Your task to perform on an android device: create a new album in the google photos Image 0: 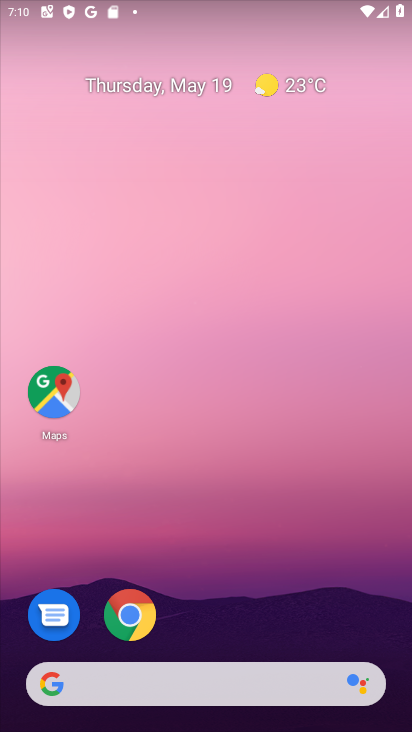
Step 0: drag from (349, 641) to (316, 22)
Your task to perform on an android device: create a new album in the google photos Image 1: 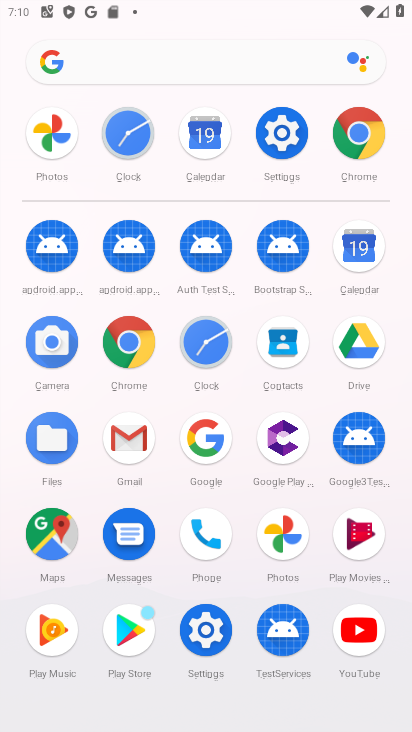
Step 1: click (274, 529)
Your task to perform on an android device: create a new album in the google photos Image 2: 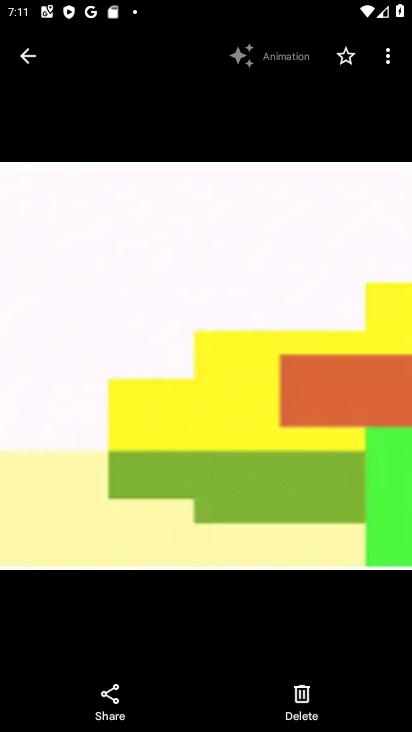
Step 2: press back button
Your task to perform on an android device: create a new album in the google photos Image 3: 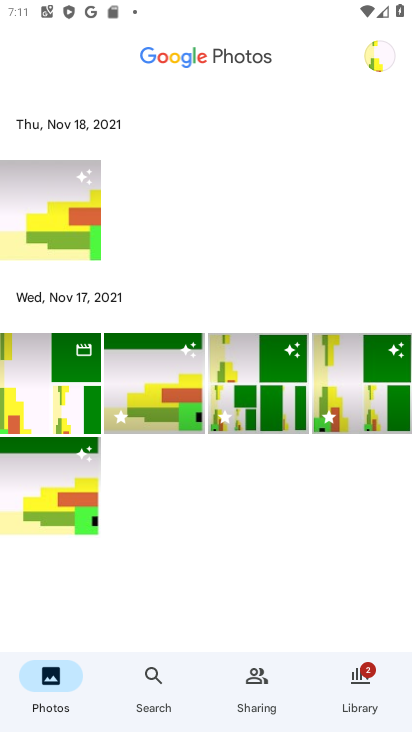
Step 3: click (51, 200)
Your task to perform on an android device: create a new album in the google photos Image 4: 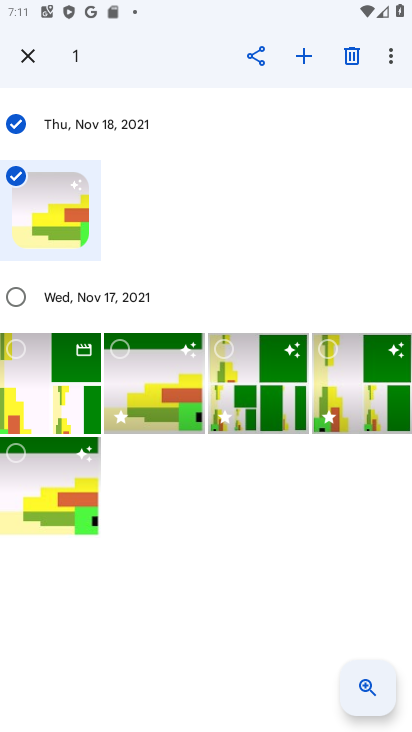
Step 4: click (299, 49)
Your task to perform on an android device: create a new album in the google photos Image 5: 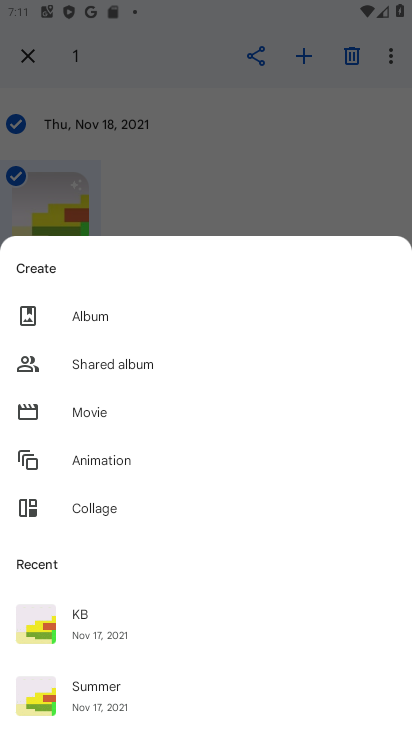
Step 5: click (153, 316)
Your task to perform on an android device: create a new album in the google photos Image 6: 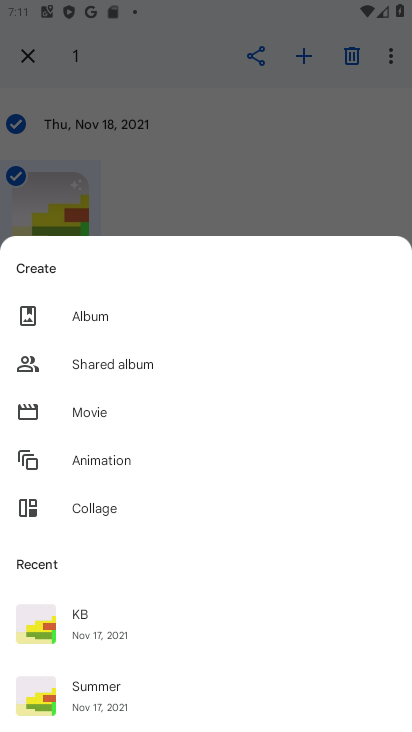
Step 6: click (101, 314)
Your task to perform on an android device: create a new album in the google photos Image 7: 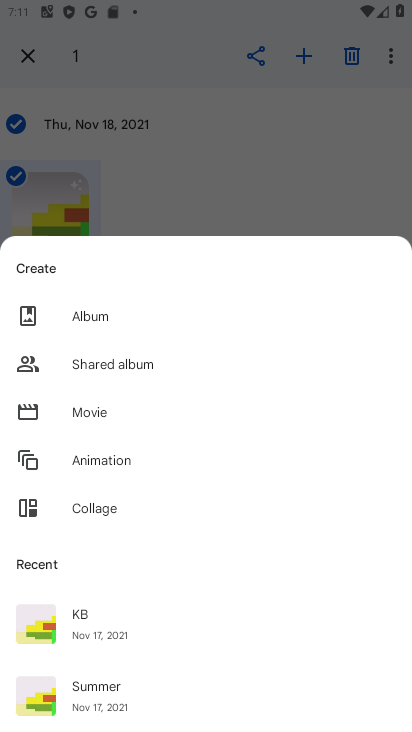
Step 7: click (124, 319)
Your task to perform on an android device: create a new album in the google photos Image 8: 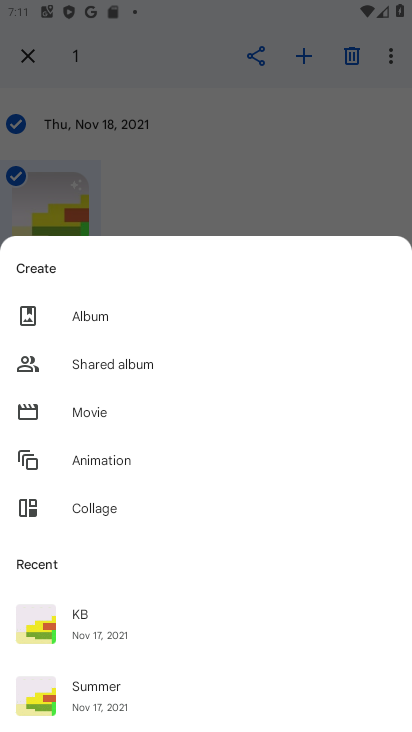
Step 8: click (123, 319)
Your task to perform on an android device: create a new album in the google photos Image 9: 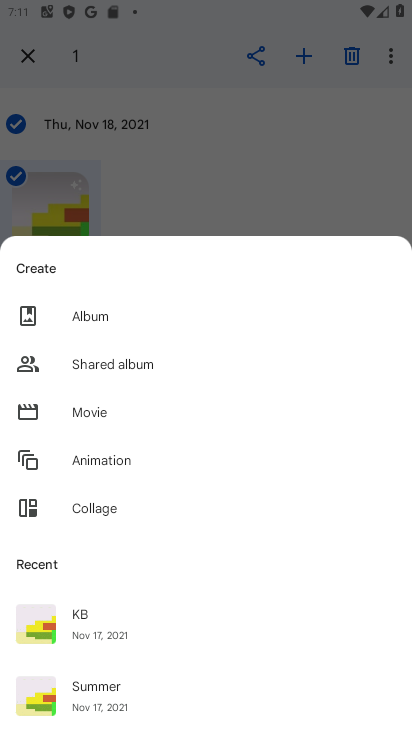
Step 9: click (123, 319)
Your task to perform on an android device: create a new album in the google photos Image 10: 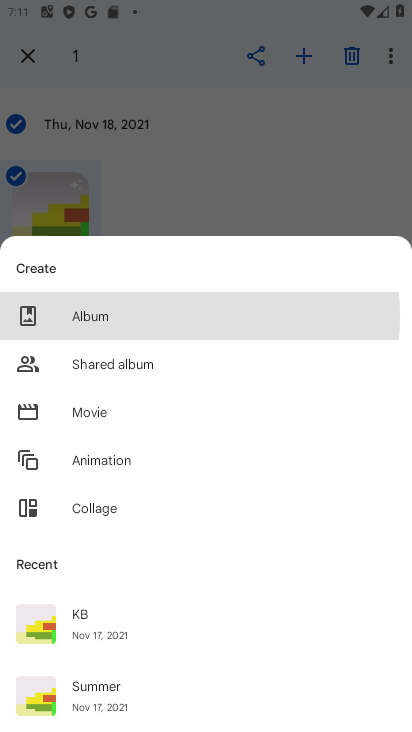
Step 10: click (123, 319)
Your task to perform on an android device: create a new album in the google photos Image 11: 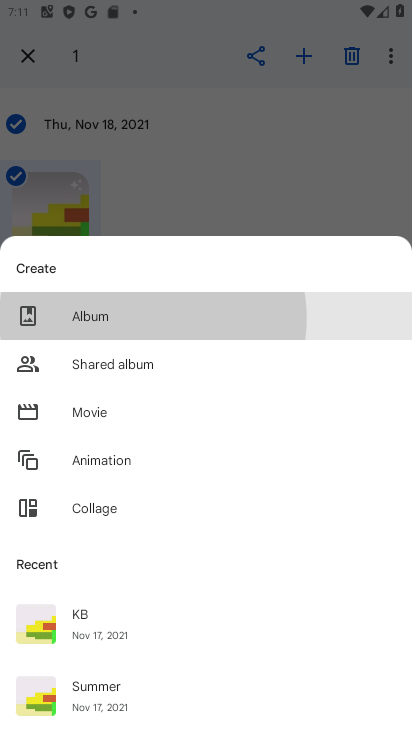
Step 11: click (123, 319)
Your task to perform on an android device: create a new album in the google photos Image 12: 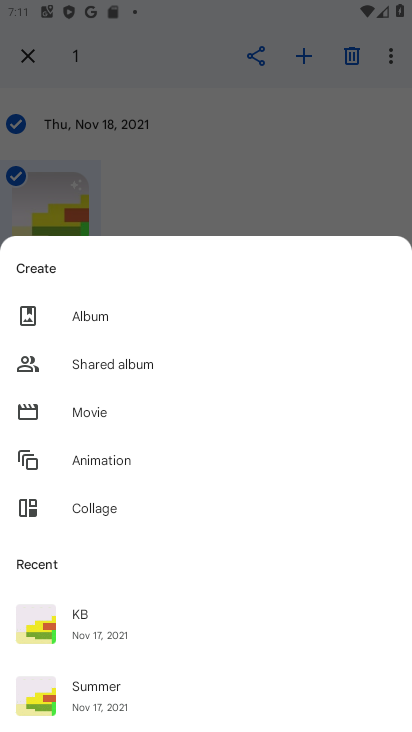
Step 12: click (123, 319)
Your task to perform on an android device: create a new album in the google photos Image 13: 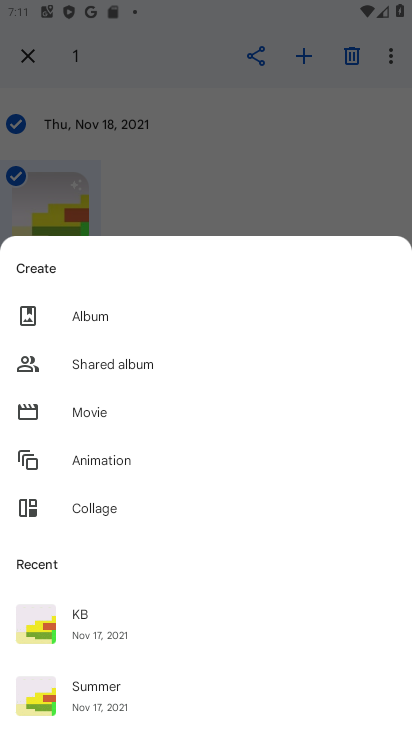
Step 13: click (123, 319)
Your task to perform on an android device: create a new album in the google photos Image 14: 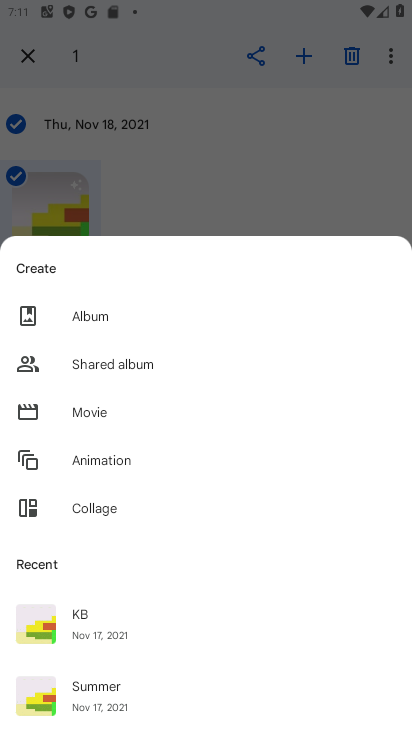
Step 14: task complete